Your task to perform on an android device: Check the weather Image 0: 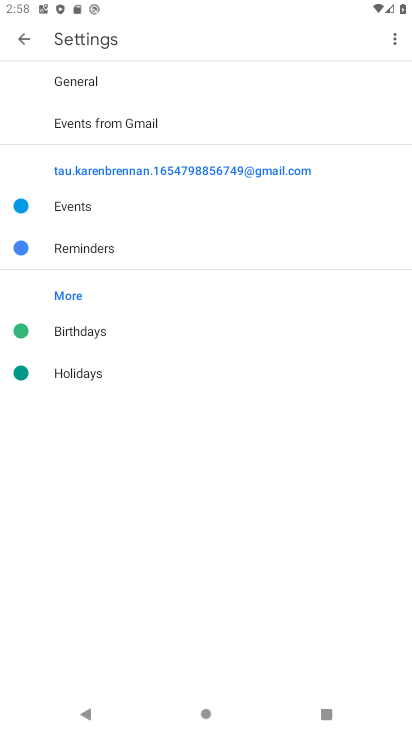
Step 0: press home button
Your task to perform on an android device: Check the weather Image 1: 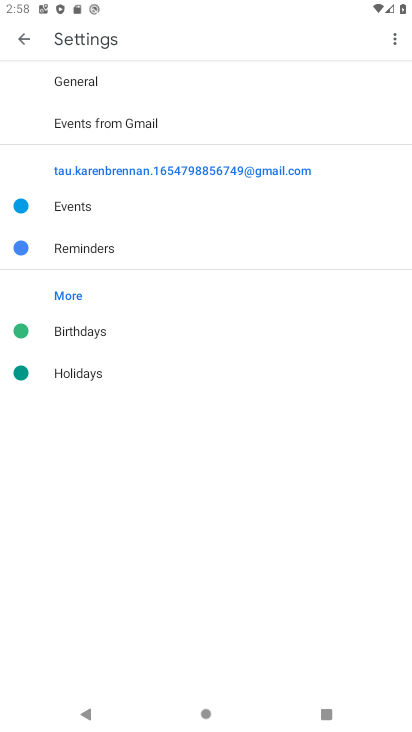
Step 1: press home button
Your task to perform on an android device: Check the weather Image 2: 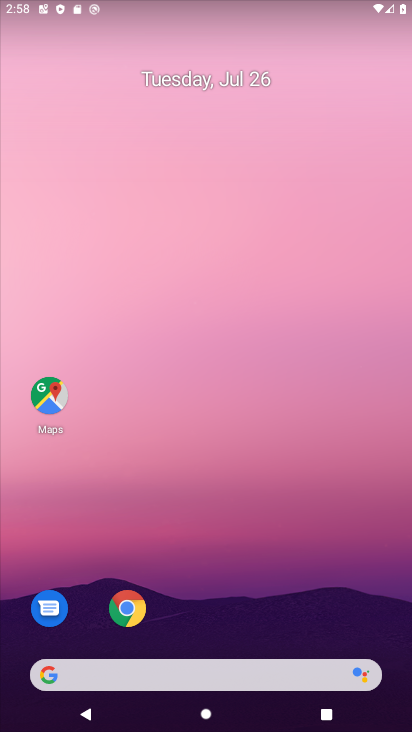
Step 2: drag from (217, 655) to (225, 135)
Your task to perform on an android device: Check the weather Image 3: 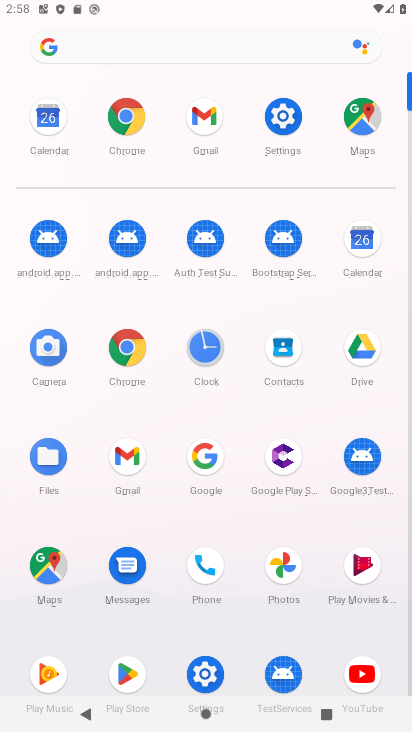
Step 3: click (242, 55)
Your task to perform on an android device: Check the weather Image 4: 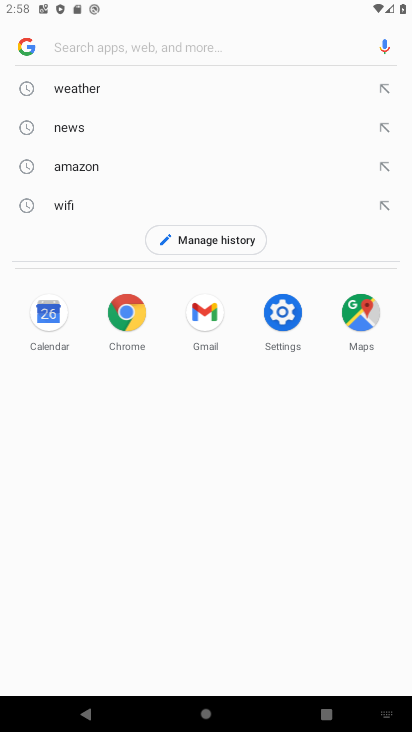
Step 4: click (145, 89)
Your task to perform on an android device: Check the weather Image 5: 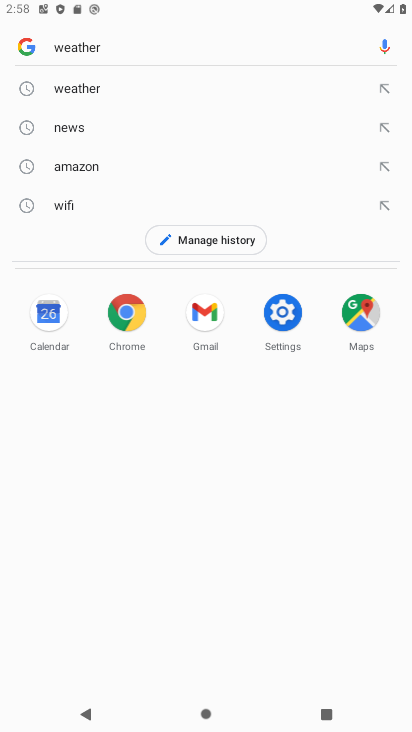
Step 5: task complete